Your task to perform on an android device: Open battery settings Image 0: 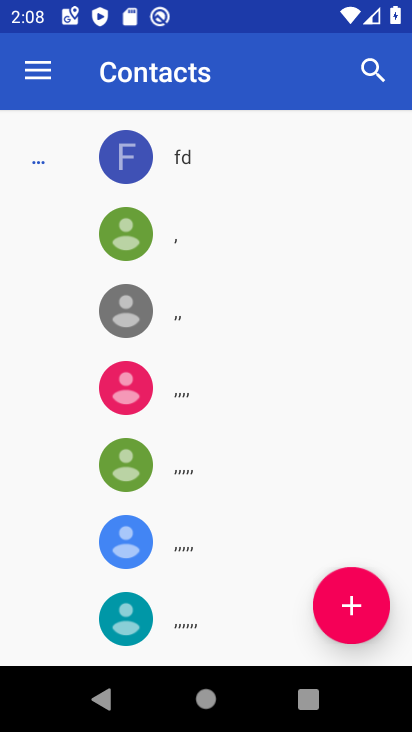
Step 0: press home button
Your task to perform on an android device: Open battery settings Image 1: 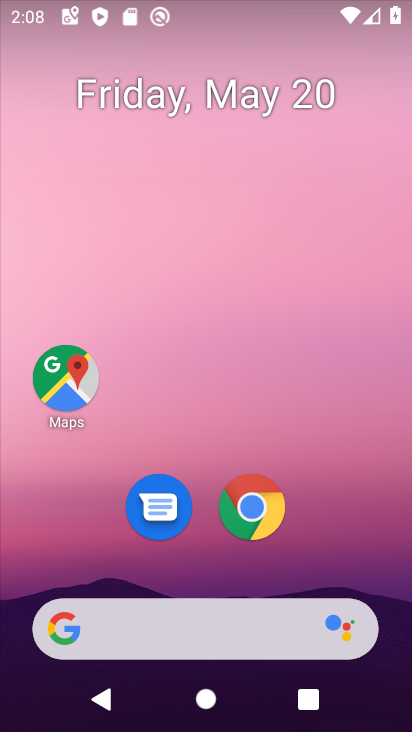
Step 1: drag from (184, 720) to (187, 91)
Your task to perform on an android device: Open battery settings Image 2: 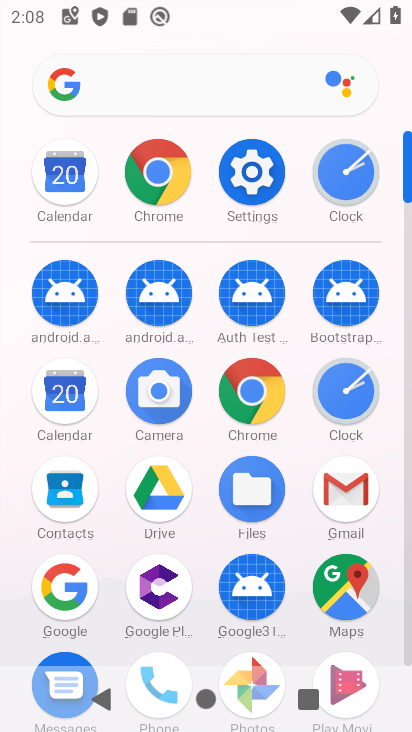
Step 2: click (239, 158)
Your task to perform on an android device: Open battery settings Image 3: 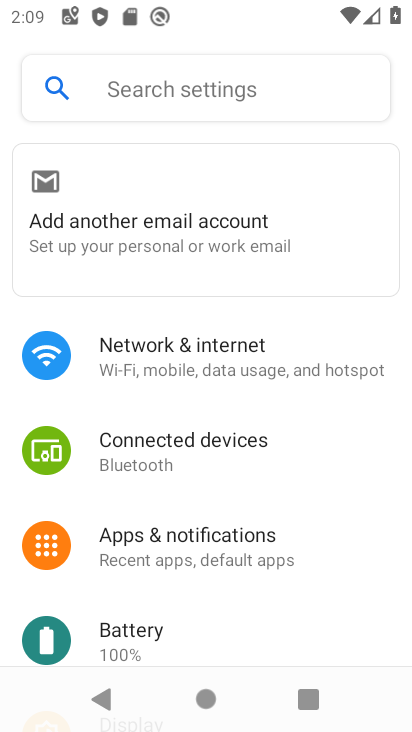
Step 3: drag from (196, 611) to (204, 340)
Your task to perform on an android device: Open battery settings Image 4: 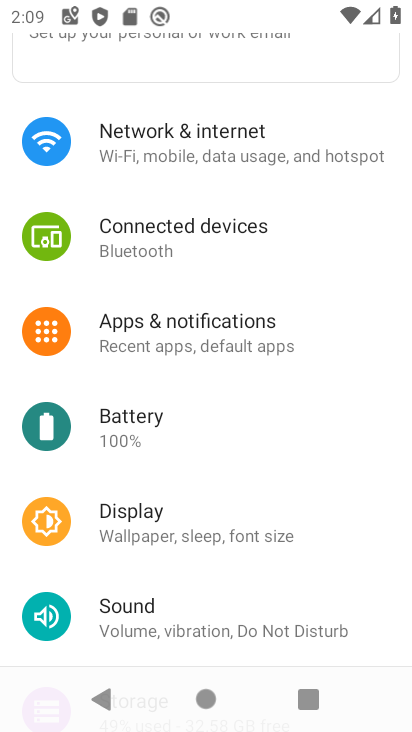
Step 4: click (150, 426)
Your task to perform on an android device: Open battery settings Image 5: 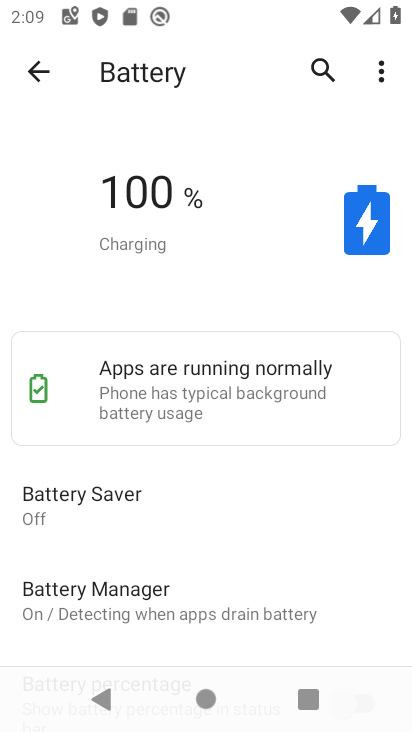
Step 5: task complete